Your task to perform on an android device: open a new tab in the chrome app Image 0: 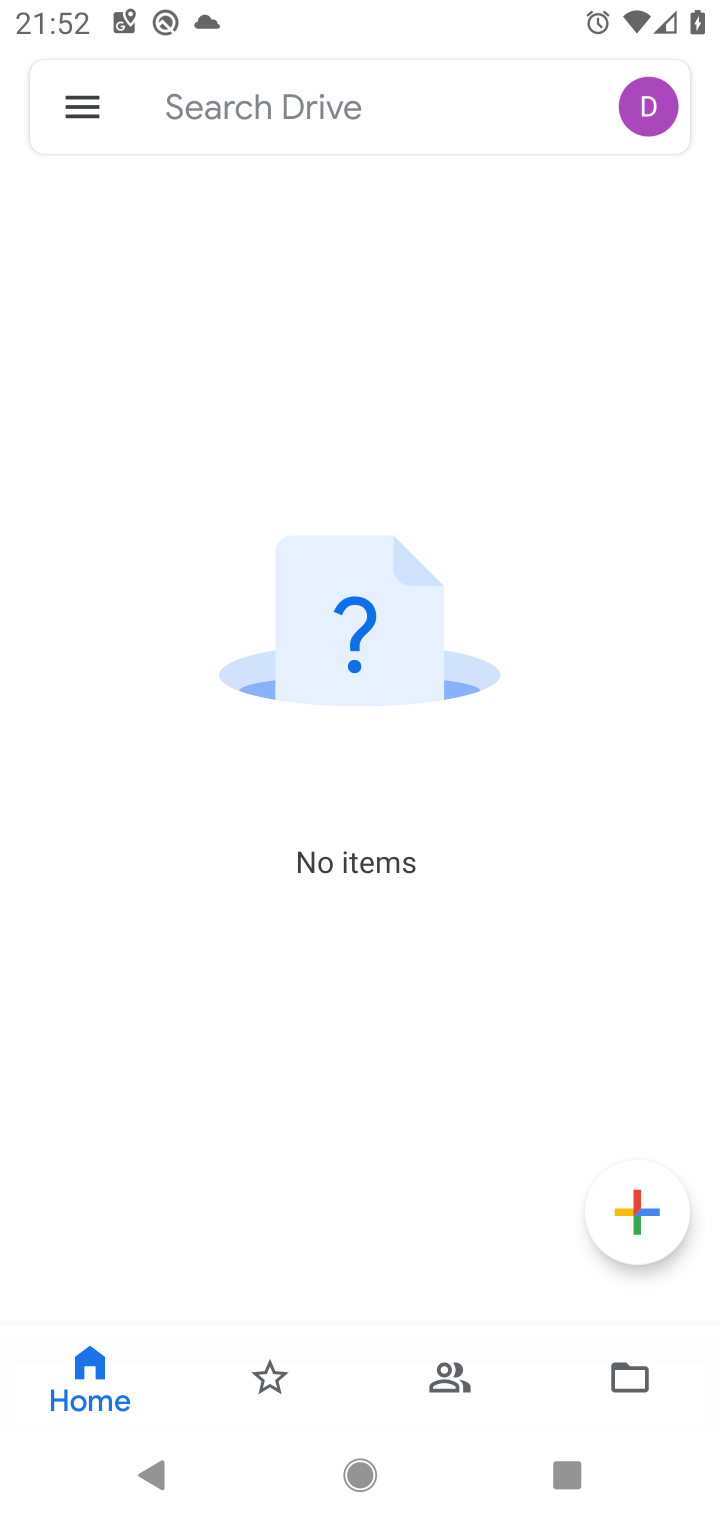
Step 0: press home button
Your task to perform on an android device: open a new tab in the chrome app Image 1: 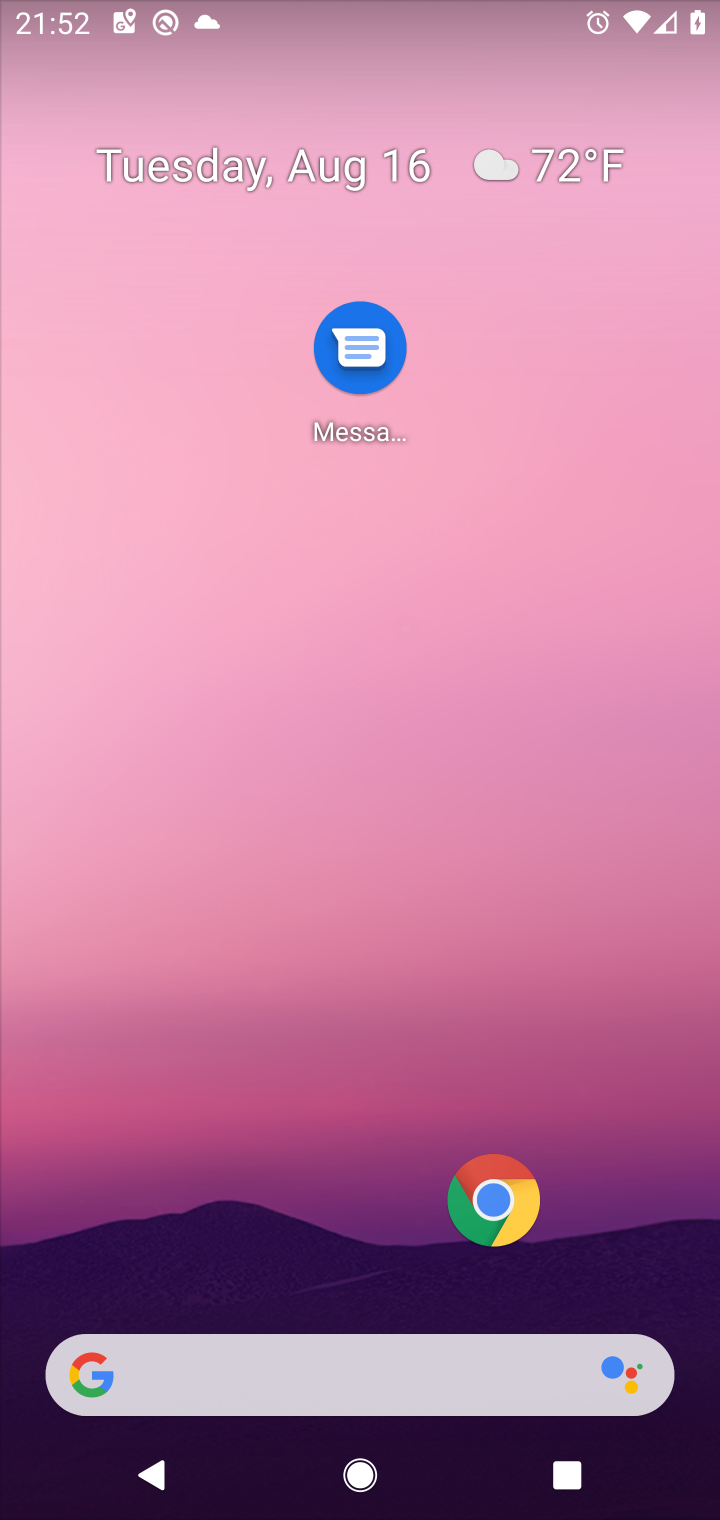
Step 1: click (503, 1185)
Your task to perform on an android device: open a new tab in the chrome app Image 2: 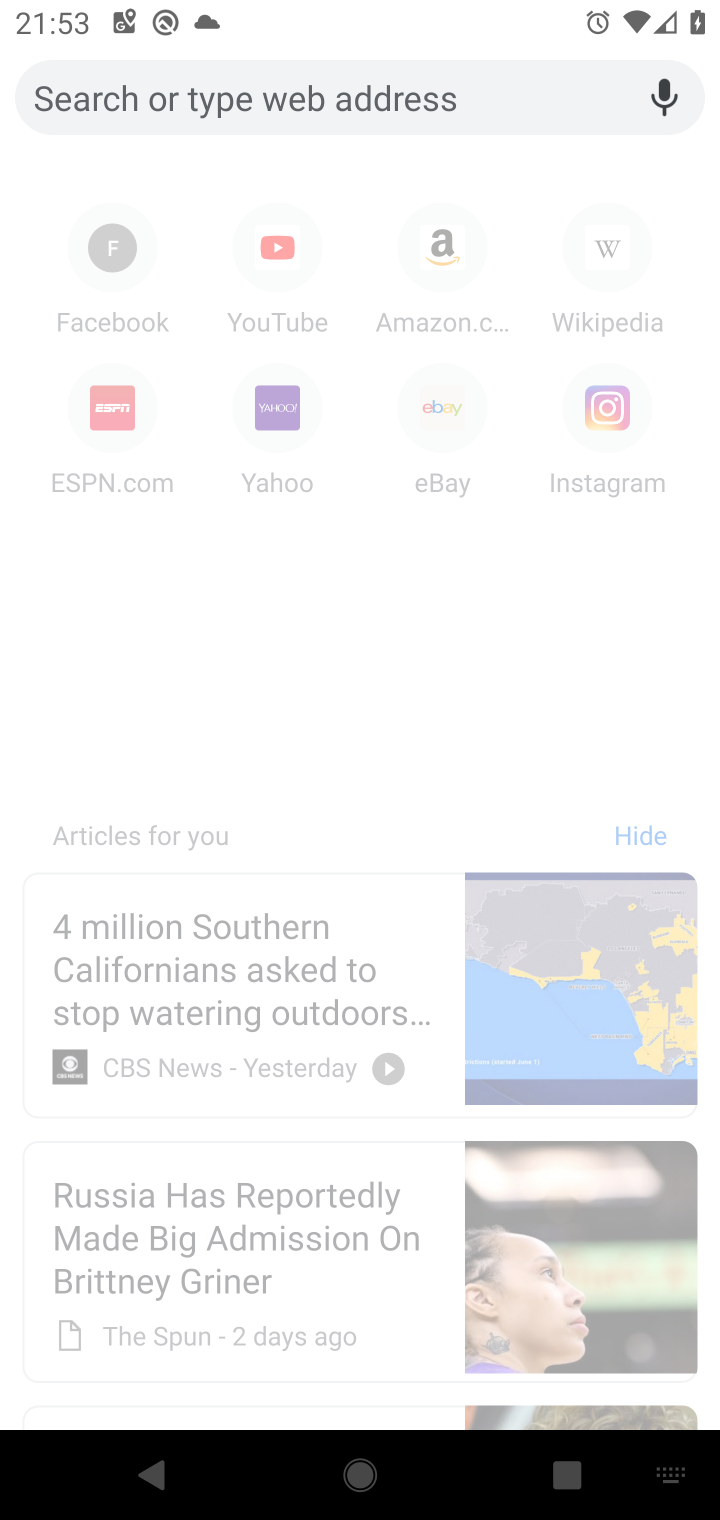
Step 2: click (304, 717)
Your task to perform on an android device: open a new tab in the chrome app Image 3: 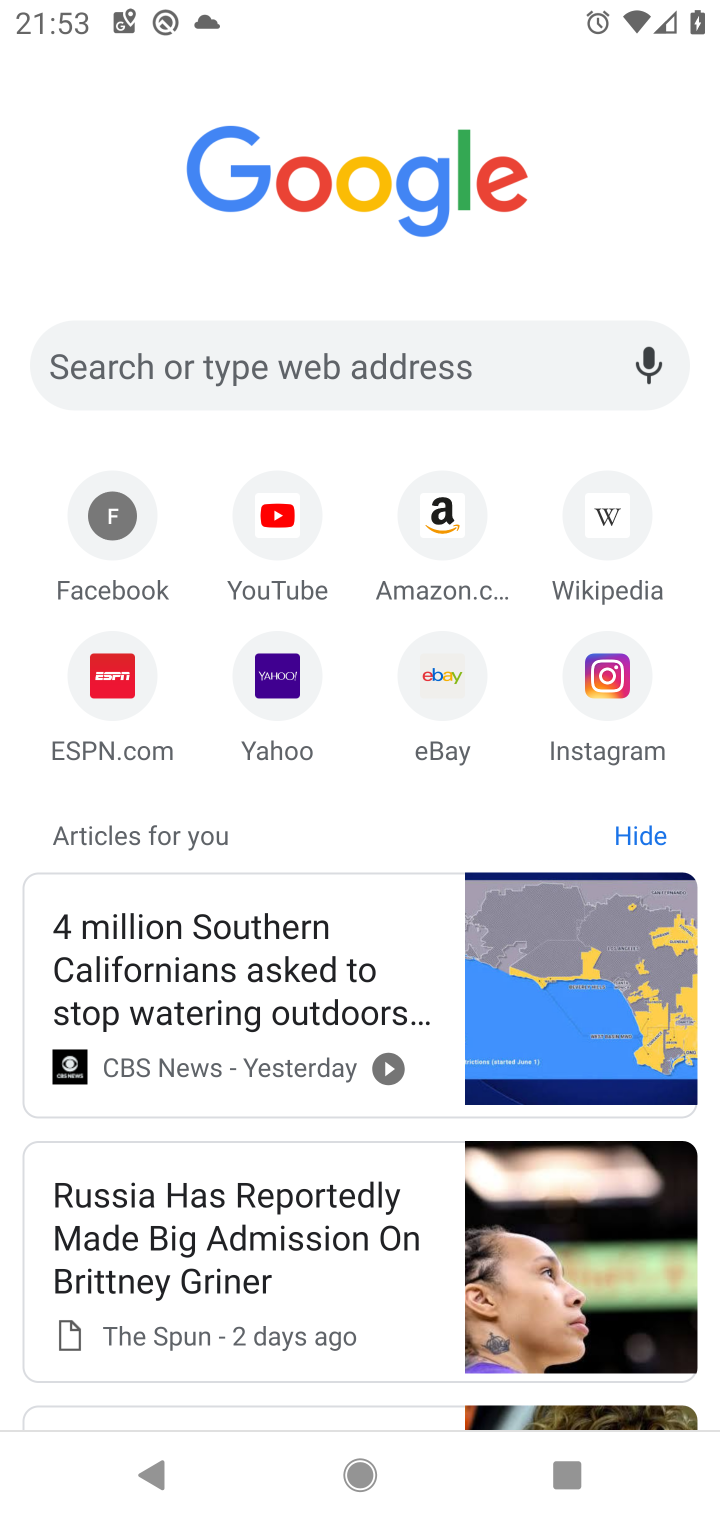
Step 3: click (236, 391)
Your task to perform on an android device: open a new tab in the chrome app Image 4: 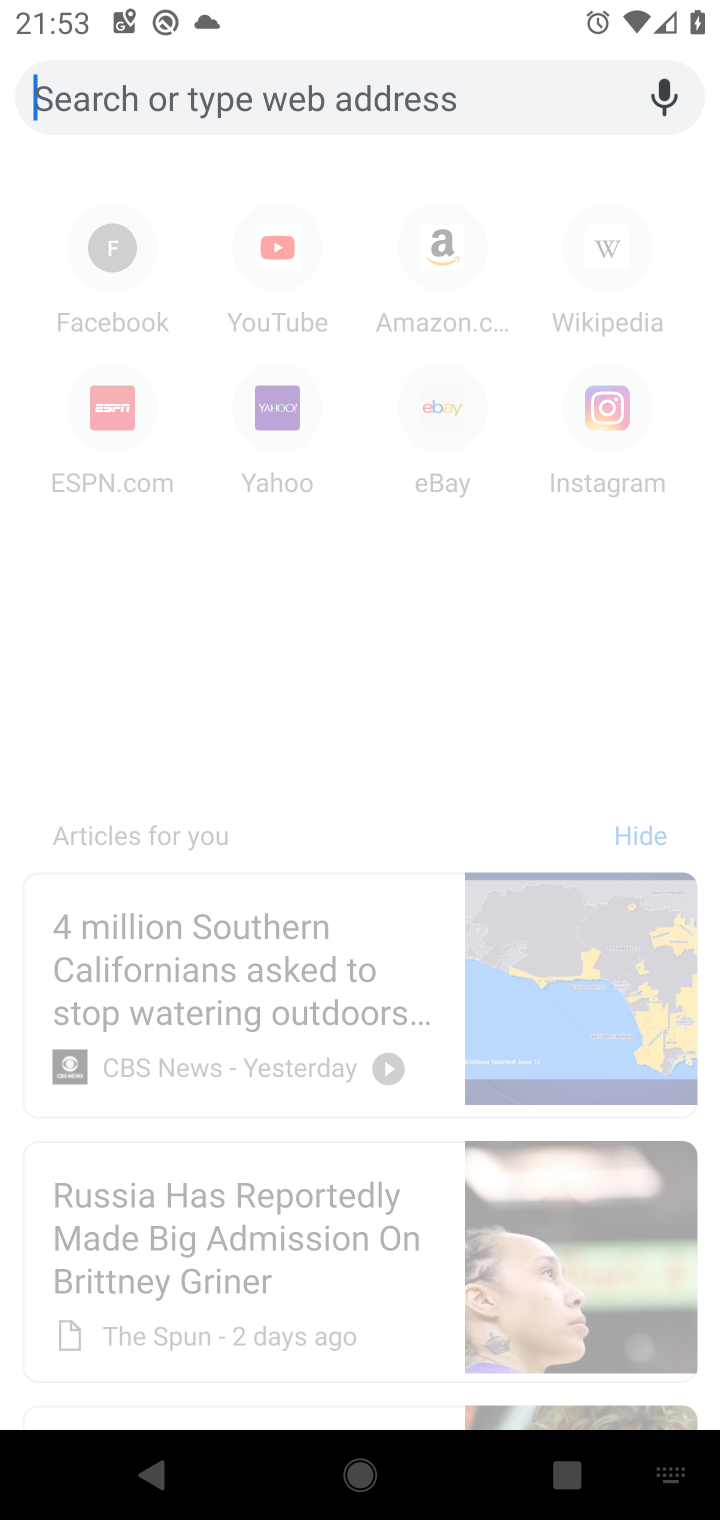
Step 4: task complete